Your task to perform on an android device: set an alarm Image 0: 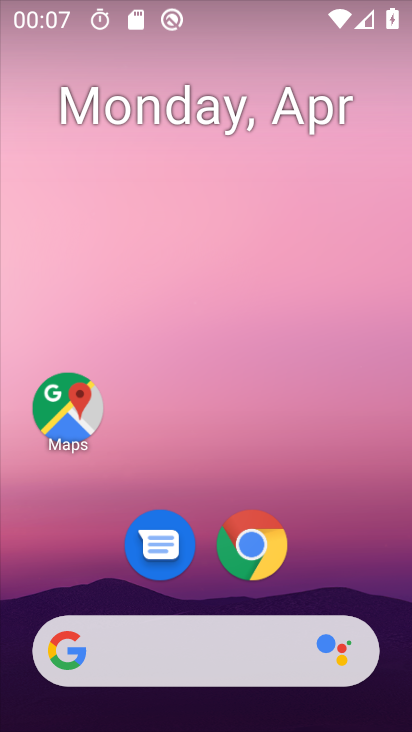
Step 0: drag from (341, 574) to (406, 171)
Your task to perform on an android device: set an alarm Image 1: 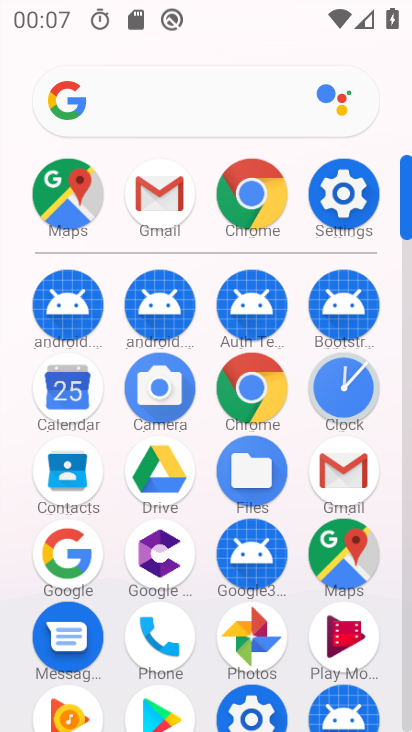
Step 1: click (346, 378)
Your task to perform on an android device: set an alarm Image 2: 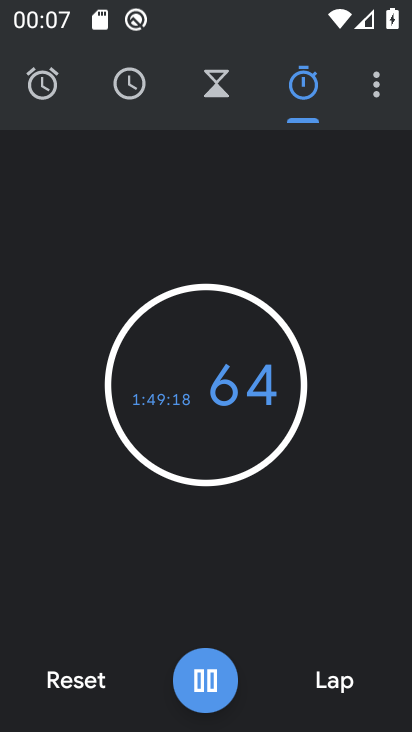
Step 2: click (48, 95)
Your task to perform on an android device: set an alarm Image 3: 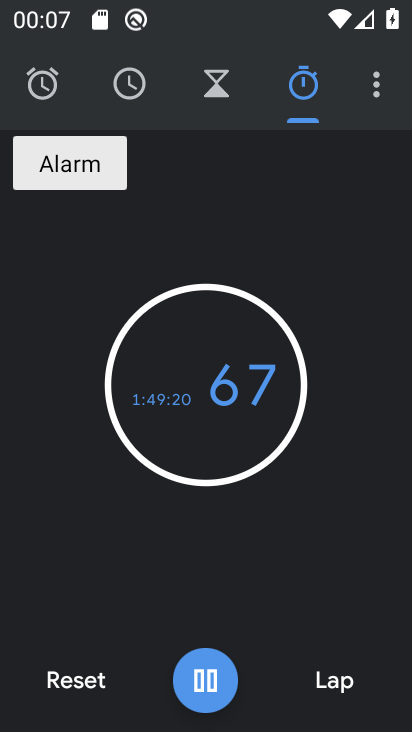
Step 3: click (46, 74)
Your task to perform on an android device: set an alarm Image 4: 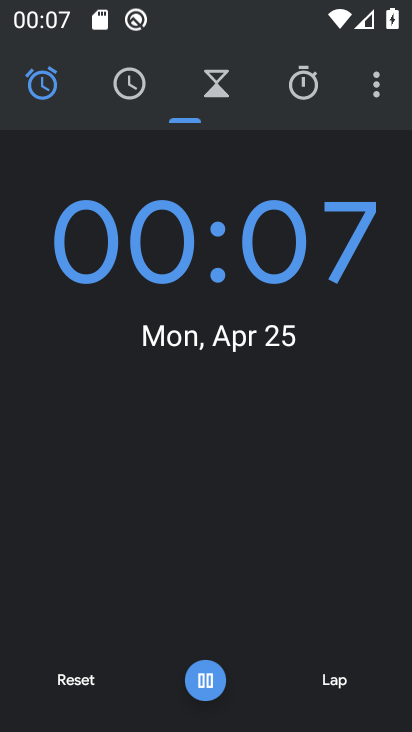
Step 4: click (45, 73)
Your task to perform on an android device: set an alarm Image 5: 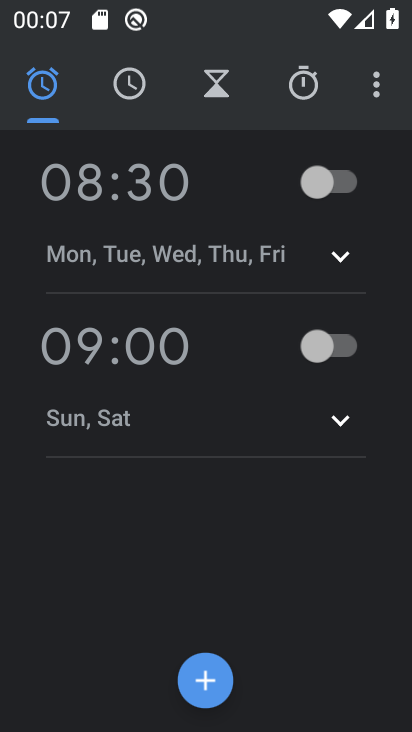
Step 5: click (45, 73)
Your task to perform on an android device: set an alarm Image 6: 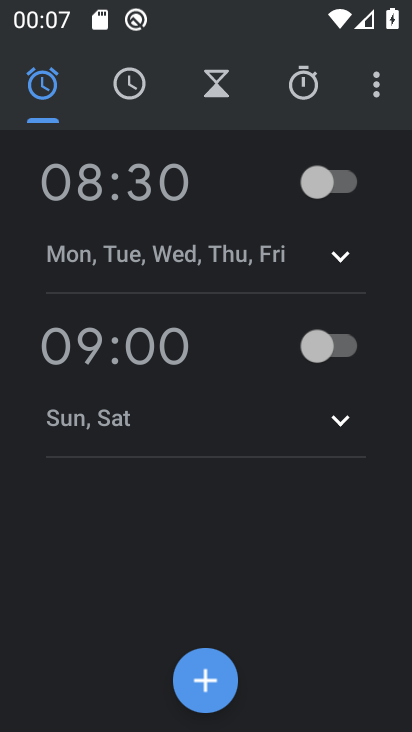
Step 6: click (350, 177)
Your task to perform on an android device: set an alarm Image 7: 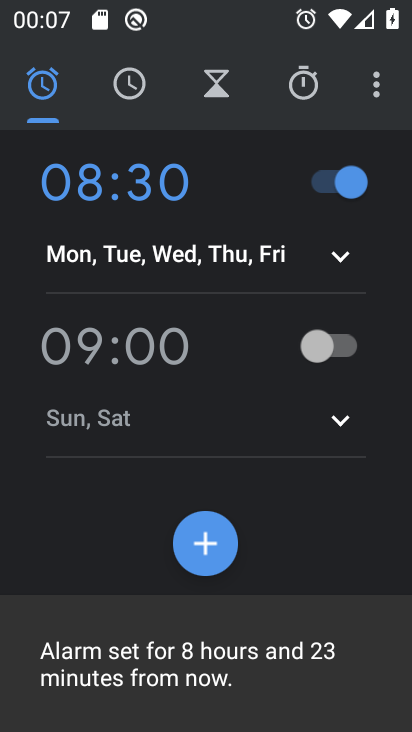
Step 7: click (331, 245)
Your task to perform on an android device: set an alarm Image 8: 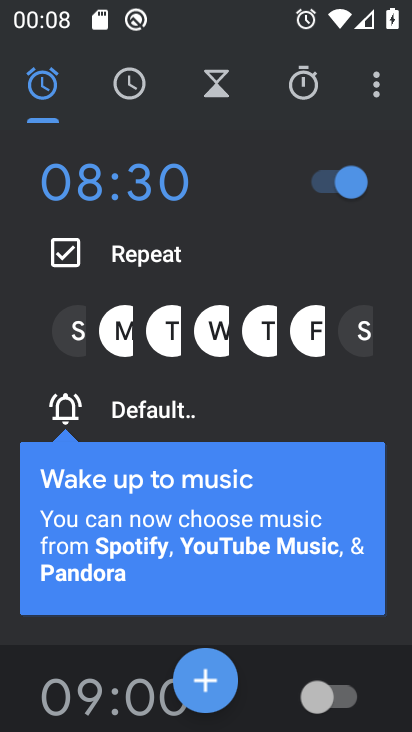
Step 8: click (71, 338)
Your task to perform on an android device: set an alarm Image 9: 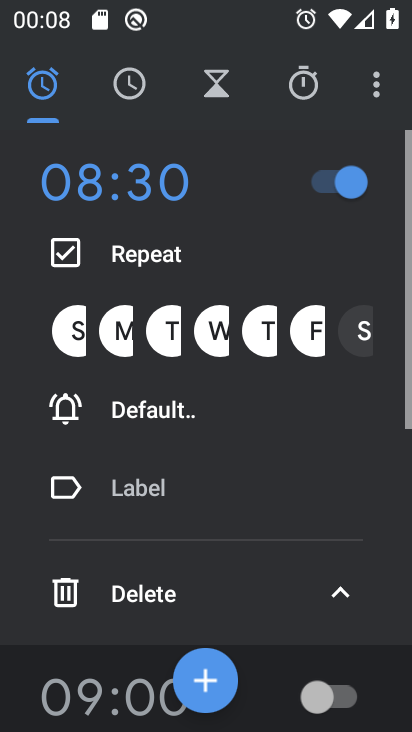
Step 9: click (365, 329)
Your task to perform on an android device: set an alarm Image 10: 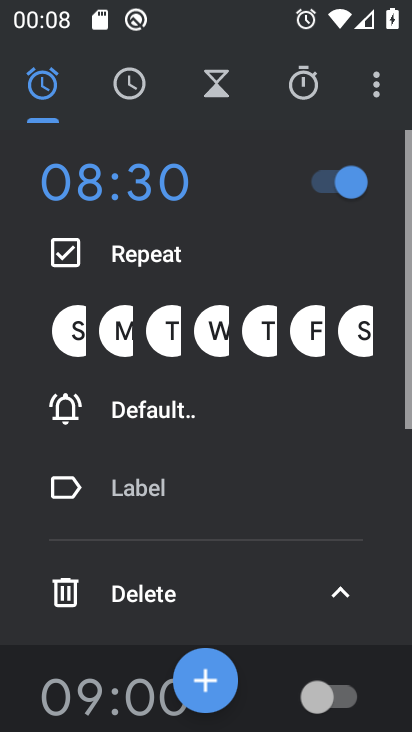
Step 10: click (341, 573)
Your task to perform on an android device: set an alarm Image 11: 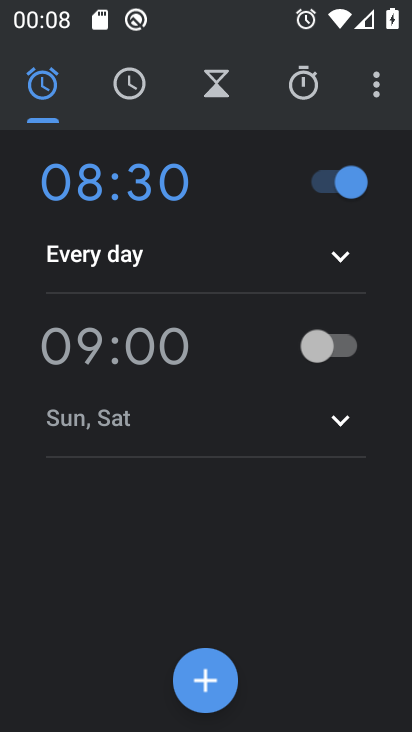
Step 11: task complete